Your task to perform on an android device: see tabs open on other devices in the chrome app Image 0: 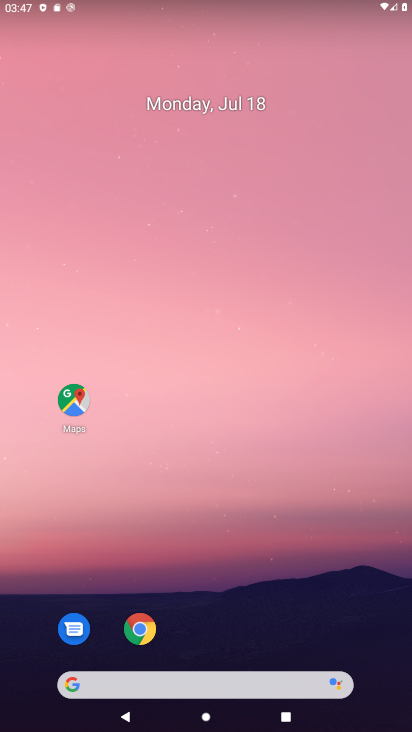
Step 0: click (136, 628)
Your task to perform on an android device: see tabs open on other devices in the chrome app Image 1: 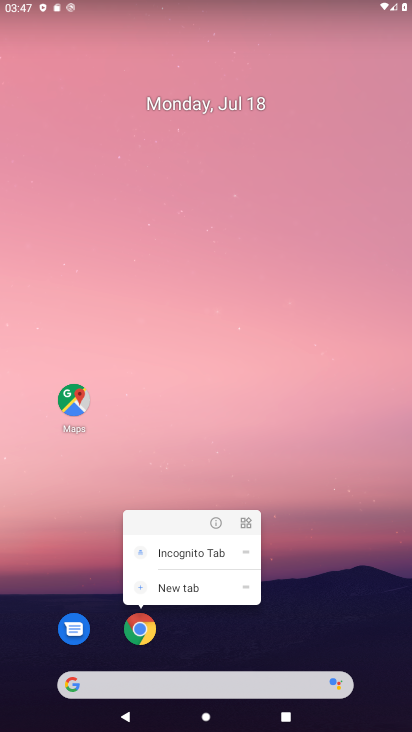
Step 1: click (136, 628)
Your task to perform on an android device: see tabs open on other devices in the chrome app Image 2: 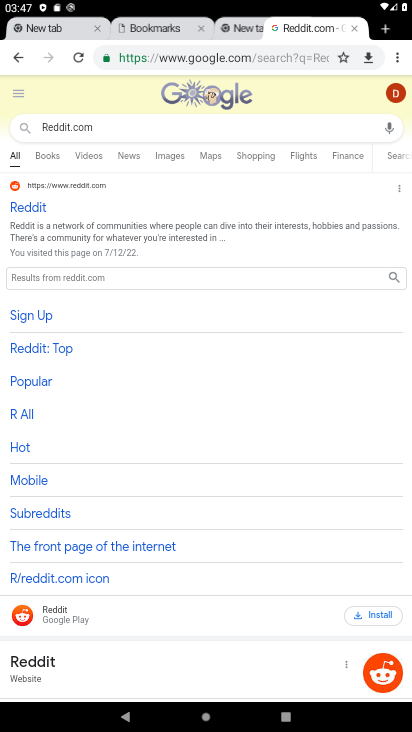
Step 2: click (396, 59)
Your task to perform on an android device: see tabs open on other devices in the chrome app Image 3: 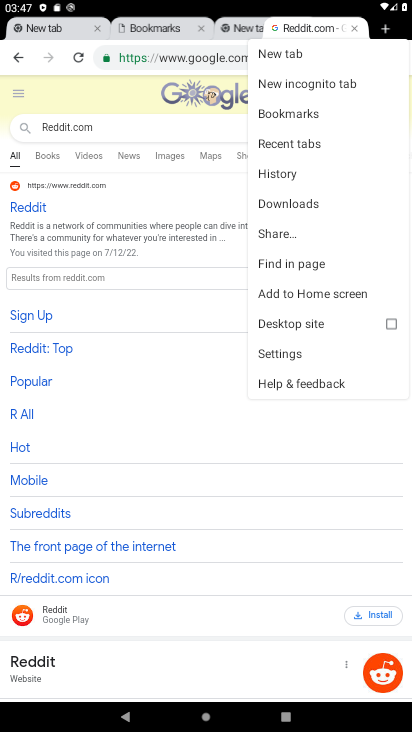
Step 3: click (288, 145)
Your task to perform on an android device: see tabs open on other devices in the chrome app Image 4: 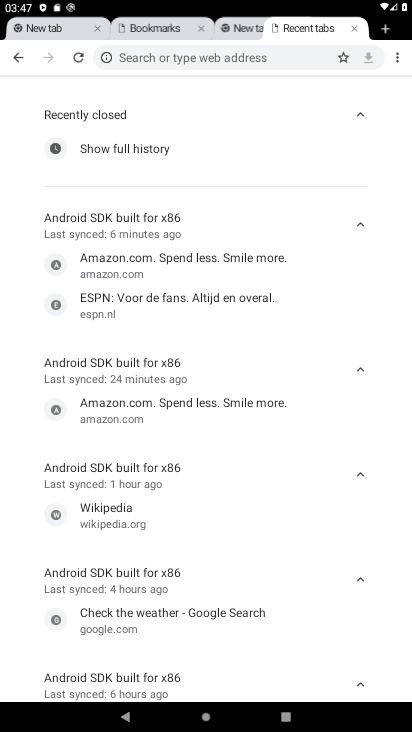
Step 4: click (393, 57)
Your task to perform on an android device: see tabs open on other devices in the chrome app Image 5: 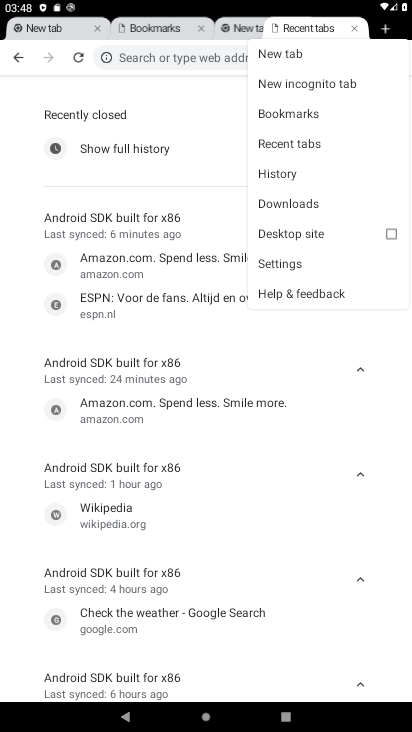
Step 5: click (280, 142)
Your task to perform on an android device: see tabs open on other devices in the chrome app Image 6: 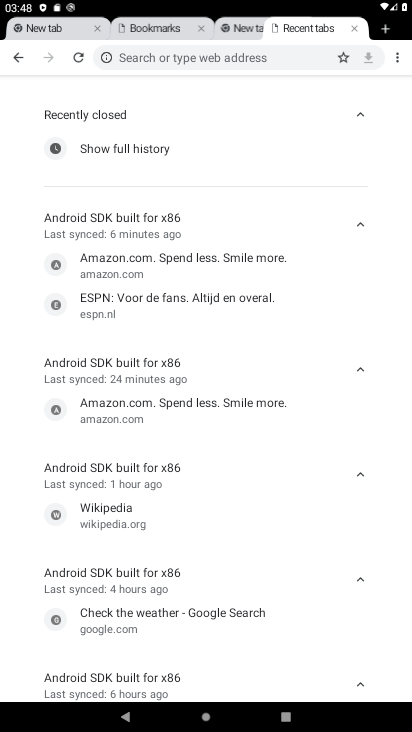
Step 6: task complete